Your task to perform on an android device: toggle pop-ups in chrome Image 0: 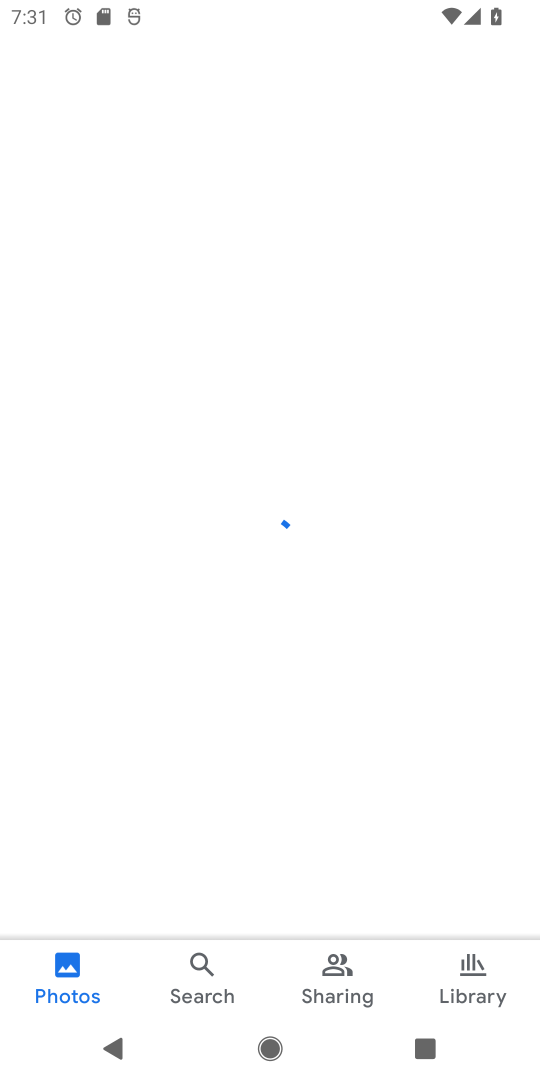
Step 0: press home button
Your task to perform on an android device: toggle pop-ups in chrome Image 1: 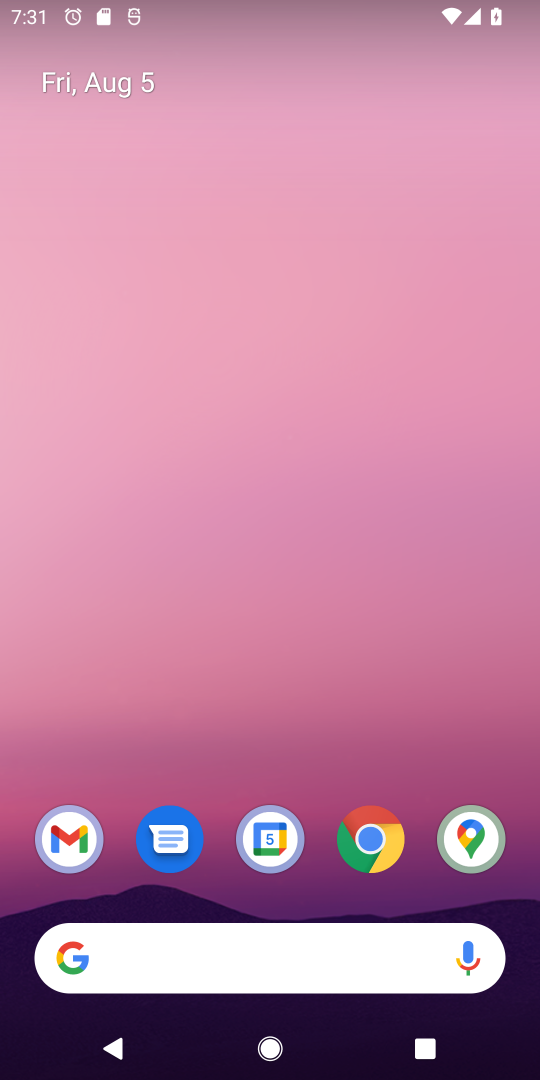
Step 1: click (363, 823)
Your task to perform on an android device: toggle pop-ups in chrome Image 2: 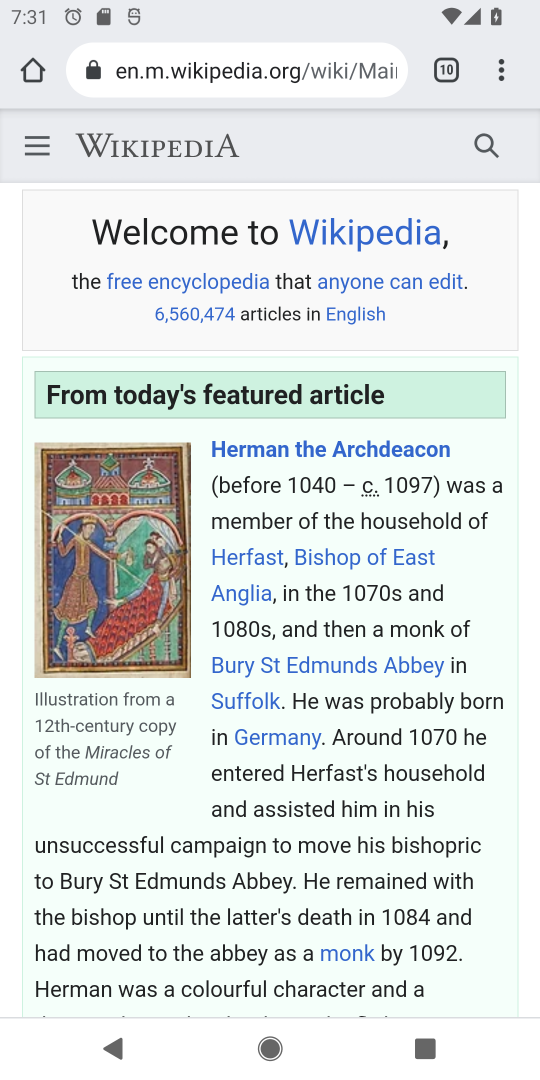
Step 2: drag from (490, 70) to (279, 839)
Your task to perform on an android device: toggle pop-ups in chrome Image 3: 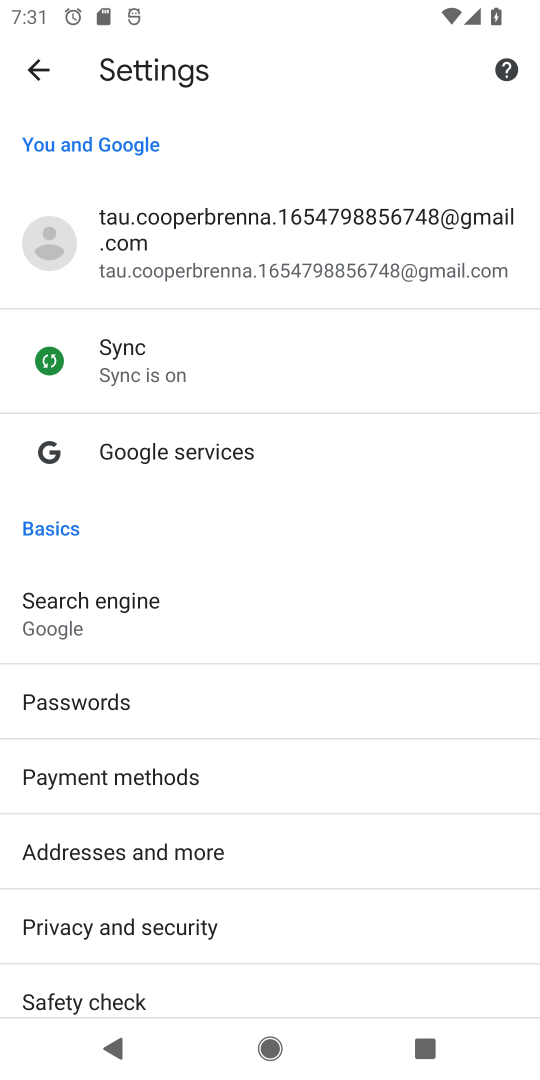
Step 3: drag from (271, 905) to (271, 426)
Your task to perform on an android device: toggle pop-ups in chrome Image 4: 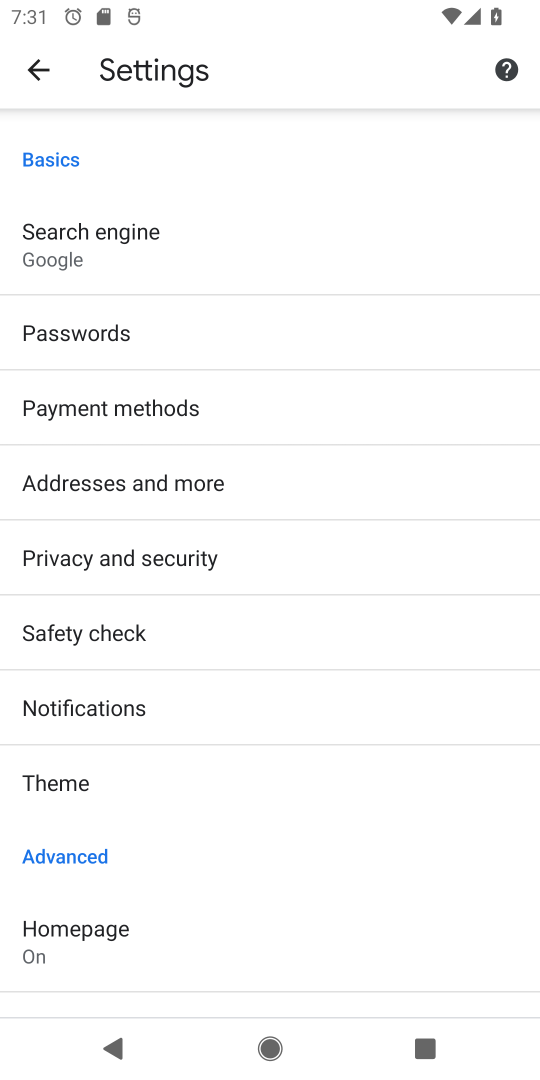
Step 4: drag from (195, 923) to (256, 443)
Your task to perform on an android device: toggle pop-ups in chrome Image 5: 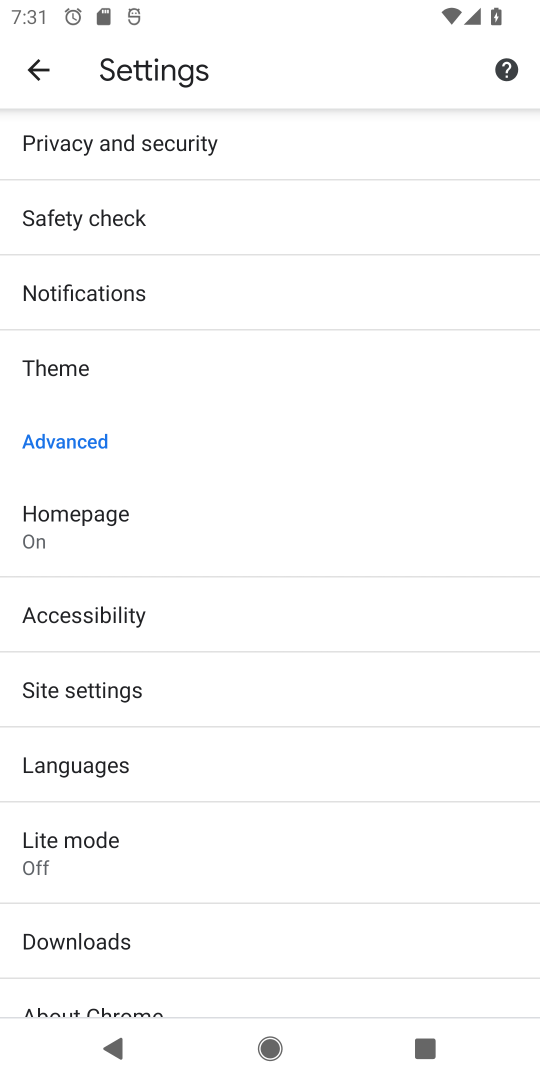
Step 5: click (124, 671)
Your task to perform on an android device: toggle pop-ups in chrome Image 6: 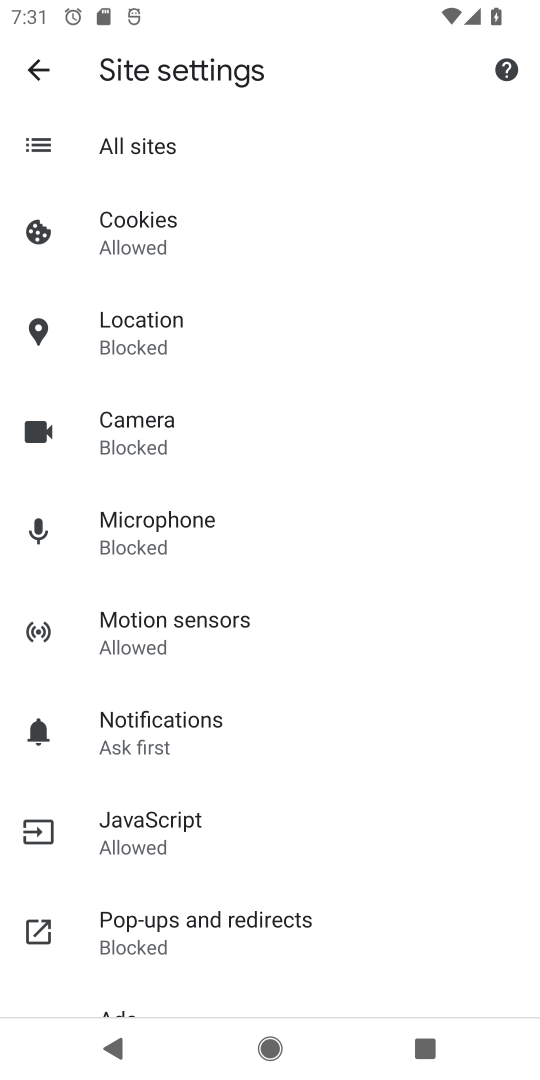
Step 6: click (241, 937)
Your task to perform on an android device: toggle pop-ups in chrome Image 7: 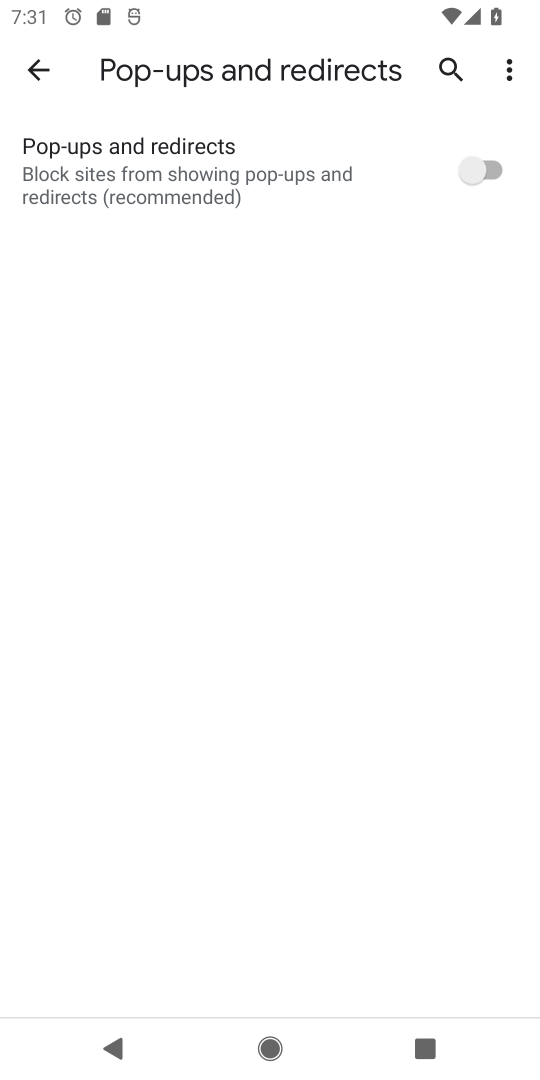
Step 7: click (505, 185)
Your task to perform on an android device: toggle pop-ups in chrome Image 8: 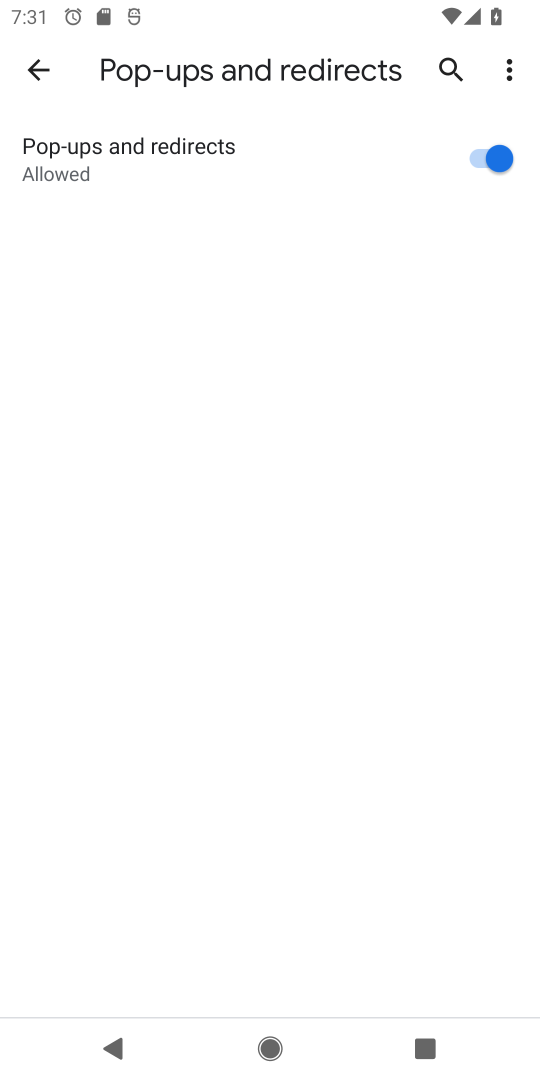
Step 8: task complete